Your task to perform on an android device: turn off priority inbox in the gmail app Image 0: 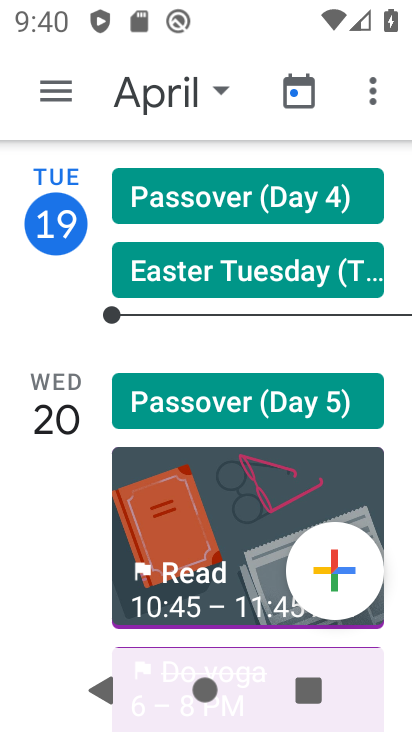
Step 0: press back button
Your task to perform on an android device: turn off priority inbox in the gmail app Image 1: 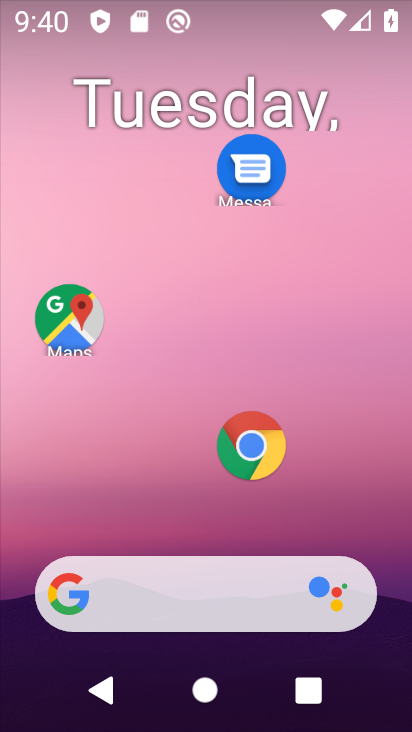
Step 1: drag from (180, 424) to (227, 30)
Your task to perform on an android device: turn off priority inbox in the gmail app Image 2: 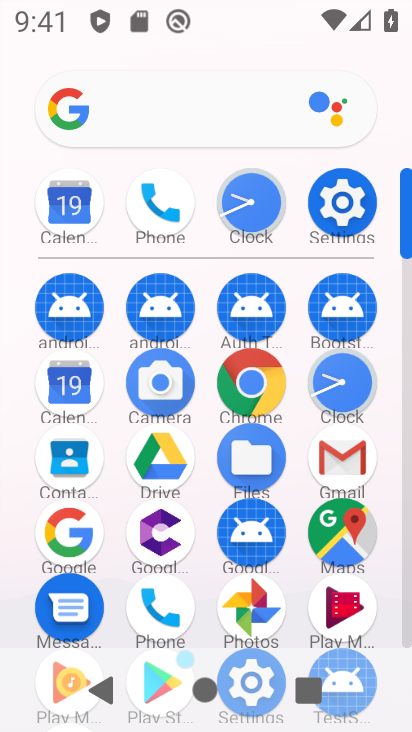
Step 2: click (347, 458)
Your task to perform on an android device: turn off priority inbox in the gmail app Image 3: 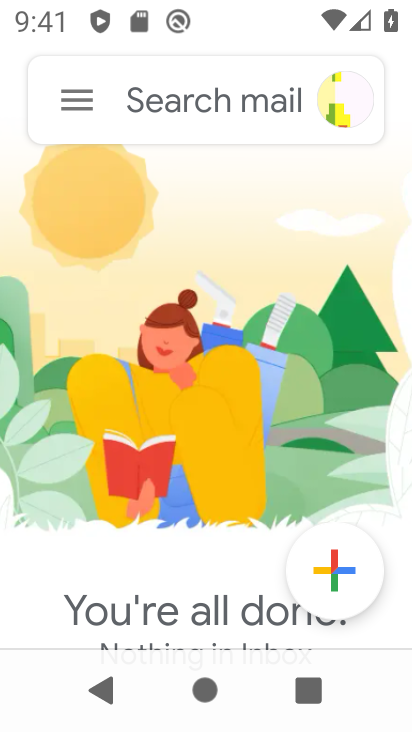
Step 3: click (71, 97)
Your task to perform on an android device: turn off priority inbox in the gmail app Image 4: 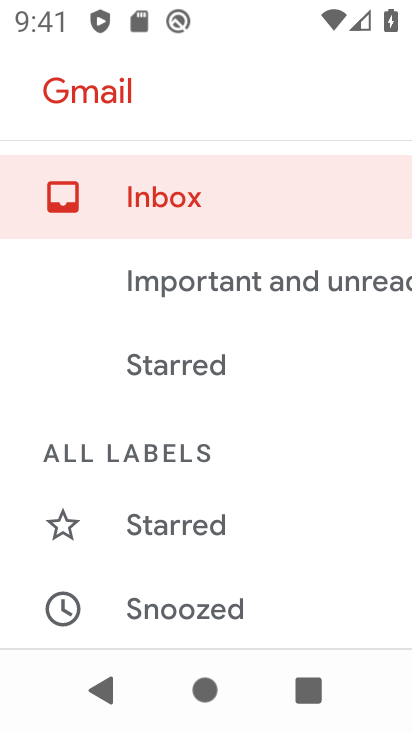
Step 4: drag from (170, 561) to (250, 35)
Your task to perform on an android device: turn off priority inbox in the gmail app Image 5: 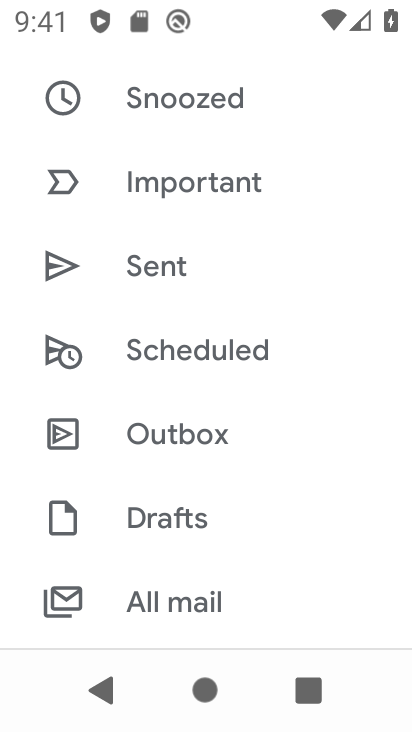
Step 5: drag from (206, 507) to (276, 13)
Your task to perform on an android device: turn off priority inbox in the gmail app Image 6: 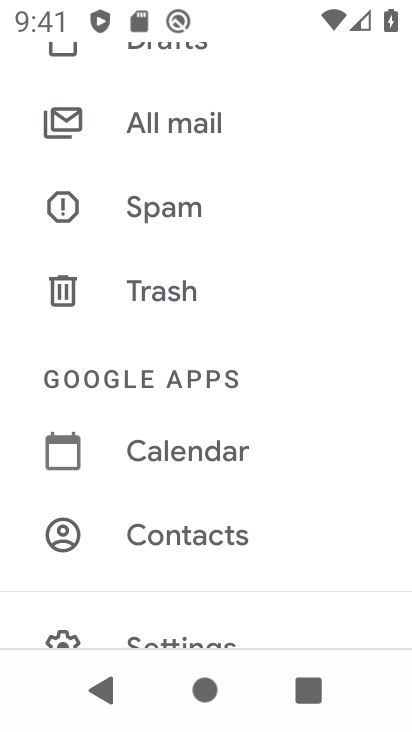
Step 6: drag from (213, 380) to (262, 52)
Your task to perform on an android device: turn off priority inbox in the gmail app Image 7: 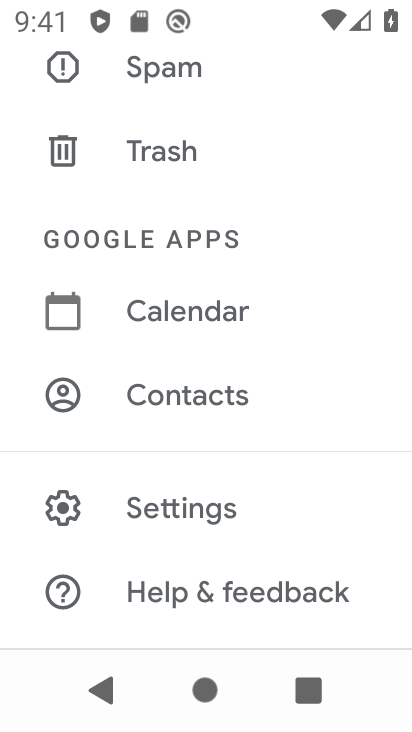
Step 7: click (167, 504)
Your task to perform on an android device: turn off priority inbox in the gmail app Image 8: 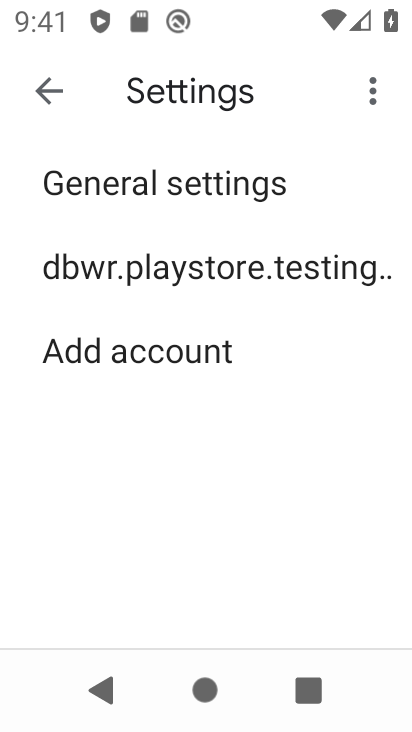
Step 8: click (149, 273)
Your task to perform on an android device: turn off priority inbox in the gmail app Image 9: 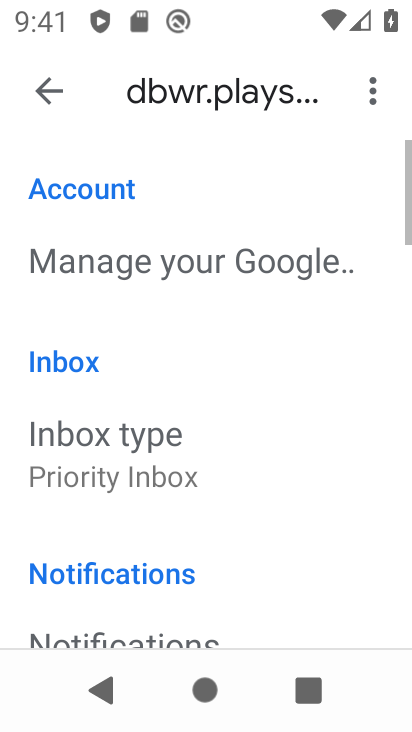
Step 9: click (153, 462)
Your task to perform on an android device: turn off priority inbox in the gmail app Image 10: 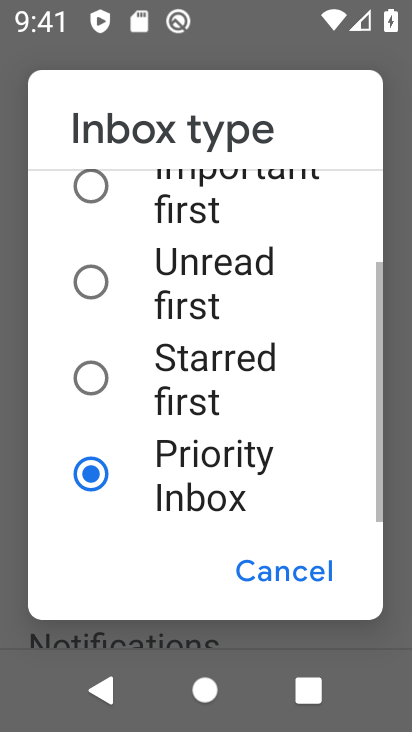
Step 10: click (91, 184)
Your task to perform on an android device: turn off priority inbox in the gmail app Image 11: 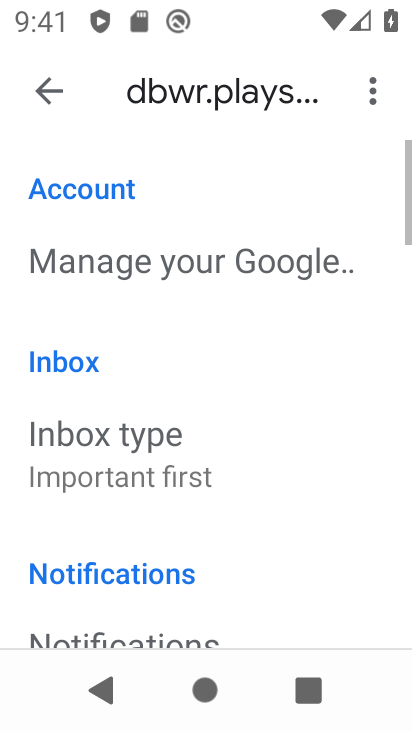
Step 11: task complete